Your task to perform on an android device: Open CNN.com Image 0: 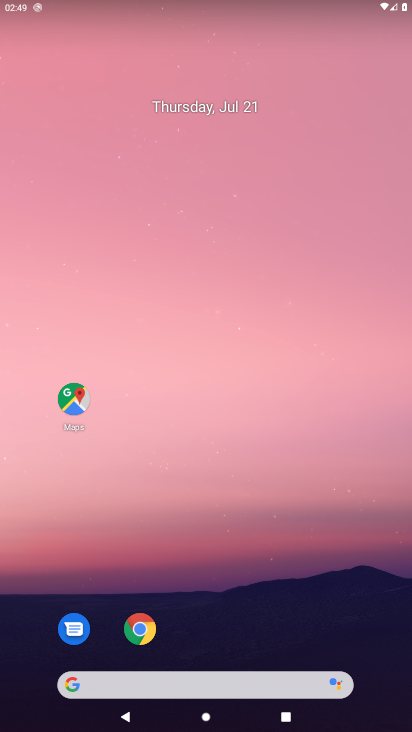
Step 0: click (99, 683)
Your task to perform on an android device: Open CNN.com Image 1: 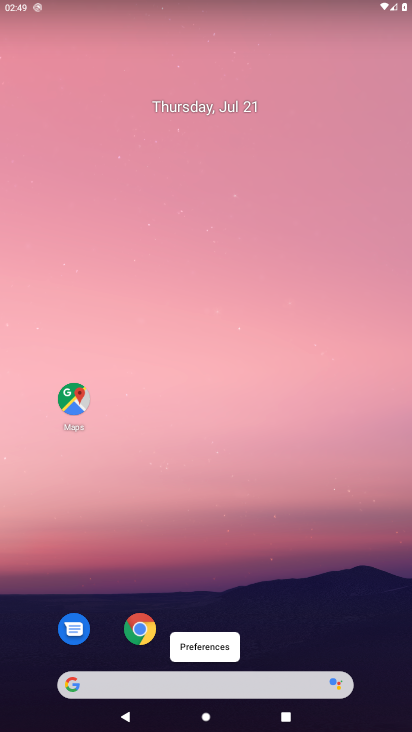
Step 1: click (96, 683)
Your task to perform on an android device: Open CNN.com Image 2: 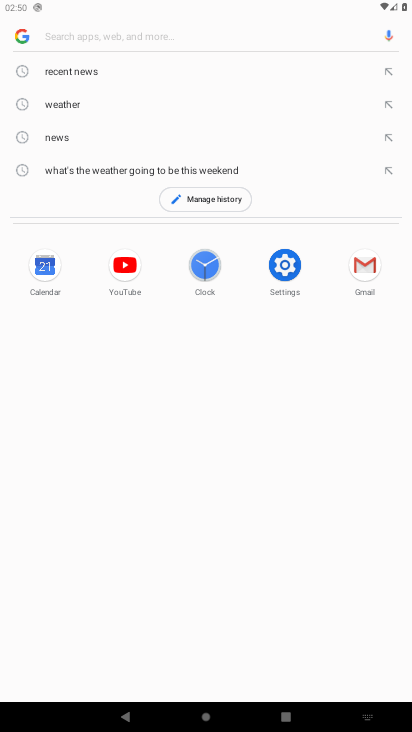
Step 2: type "CNN.com"
Your task to perform on an android device: Open CNN.com Image 3: 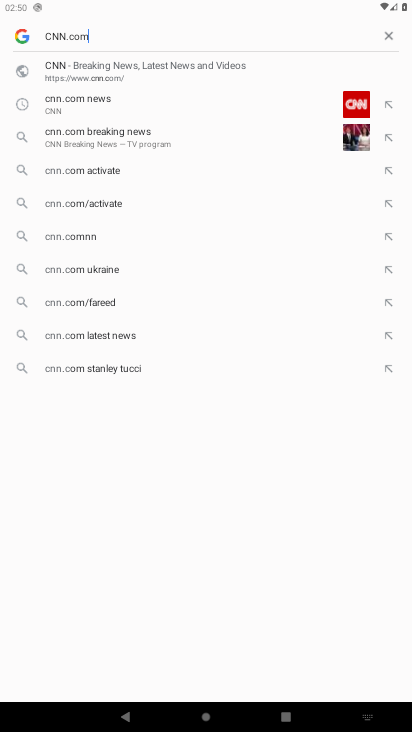
Step 3: type ""
Your task to perform on an android device: Open CNN.com Image 4: 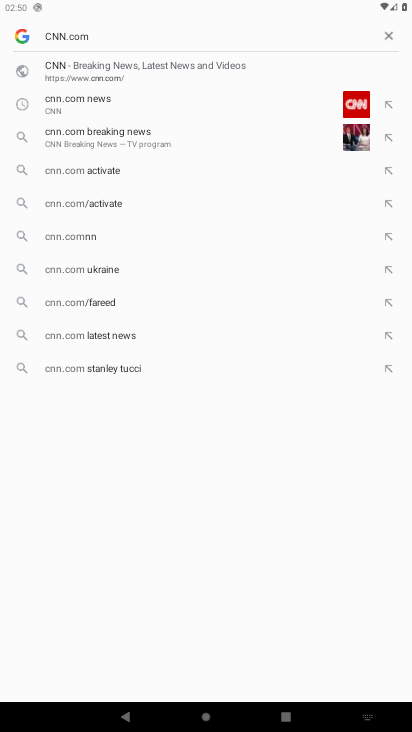
Step 4: click (60, 70)
Your task to perform on an android device: Open CNN.com Image 5: 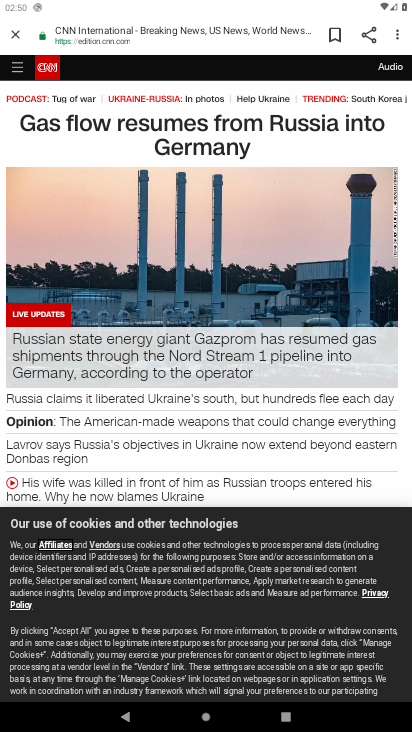
Step 5: task complete